Your task to perform on an android device: Open calendar and show me the third week of next month Image 0: 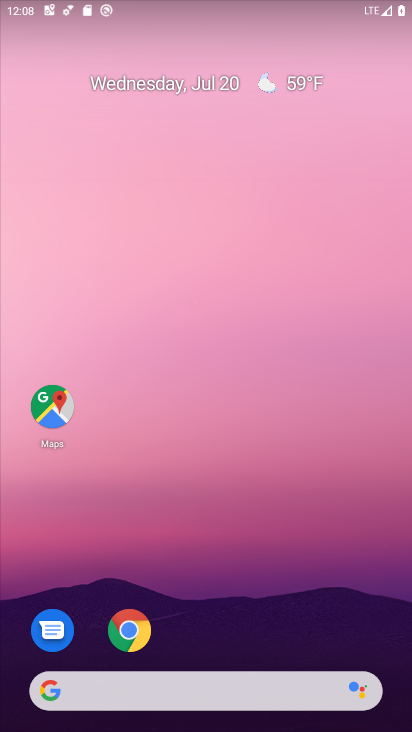
Step 0: drag from (378, 571) to (351, 92)
Your task to perform on an android device: Open calendar and show me the third week of next month Image 1: 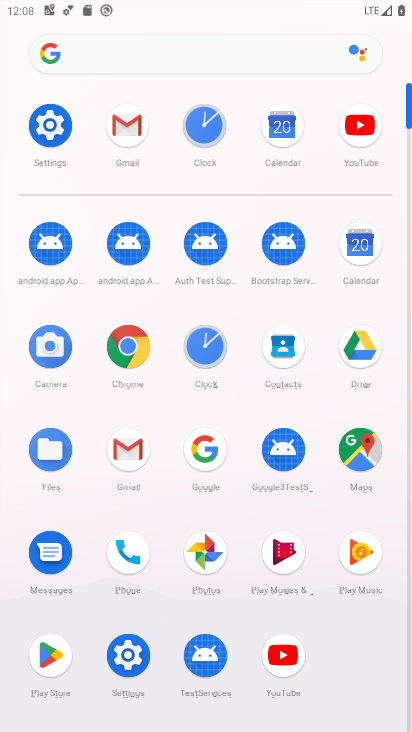
Step 1: click (358, 245)
Your task to perform on an android device: Open calendar and show me the third week of next month Image 2: 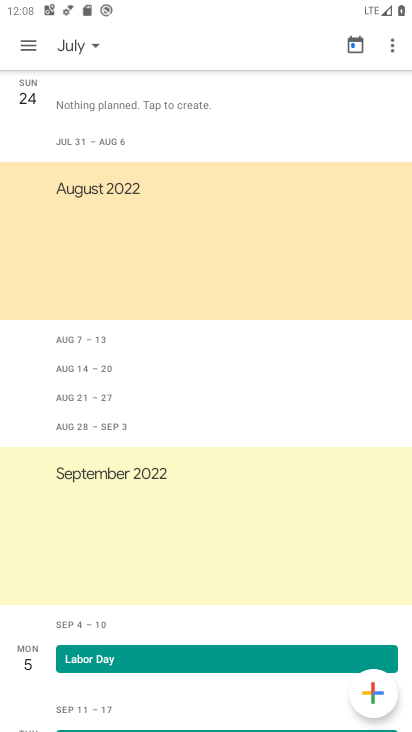
Step 2: click (34, 44)
Your task to perform on an android device: Open calendar and show me the third week of next month Image 3: 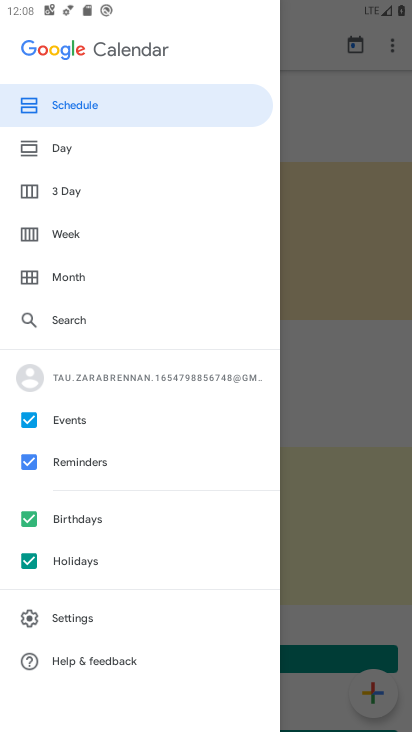
Step 3: click (73, 232)
Your task to perform on an android device: Open calendar and show me the third week of next month Image 4: 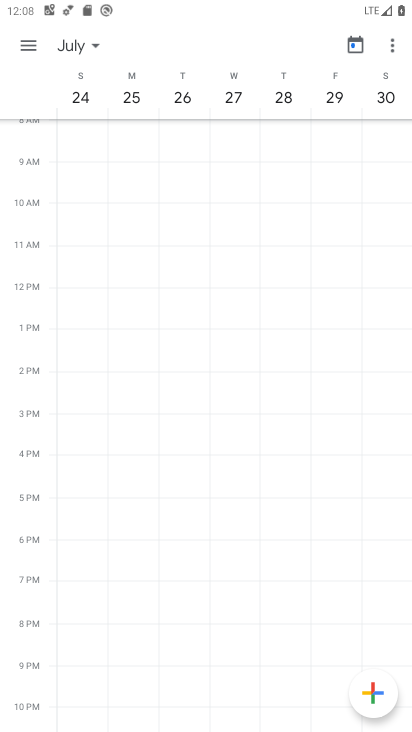
Step 4: click (33, 39)
Your task to perform on an android device: Open calendar and show me the third week of next month Image 5: 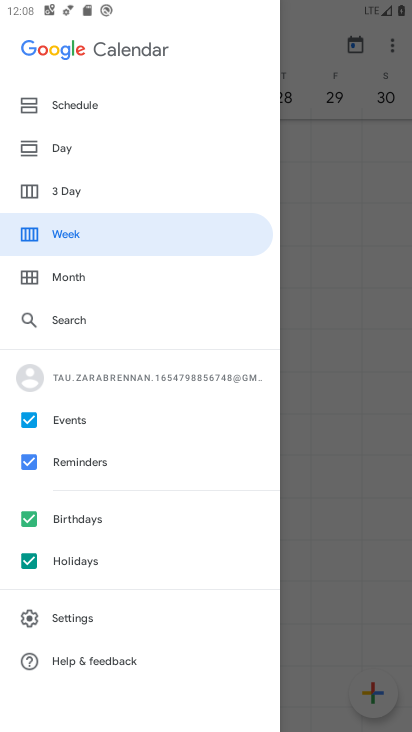
Step 5: click (105, 227)
Your task to perform on an android device: Open calendar and show me the third week of next month Image 6: 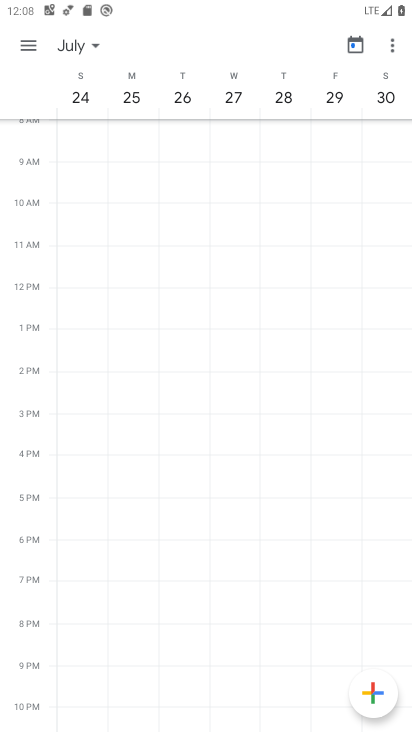
Step 6: click (94, 46)
Your task to perform on an android device: Open calendar and show me the third week of next month Image 7: 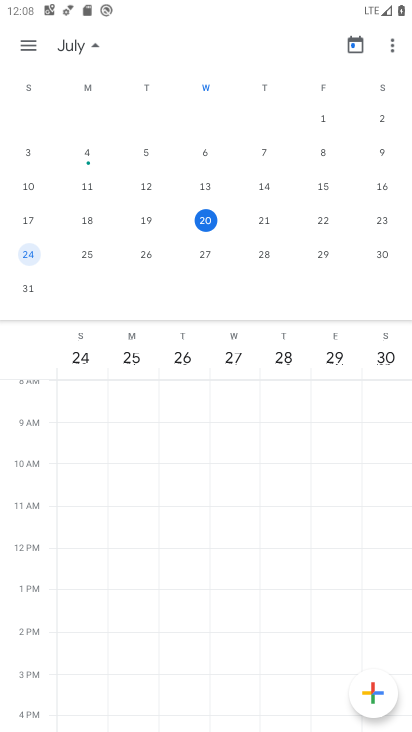
Step 7: drag from (388, 250) to (76, 259)
Your task to perform on an android device: Open calendar and show me the third week of next month Image 8: 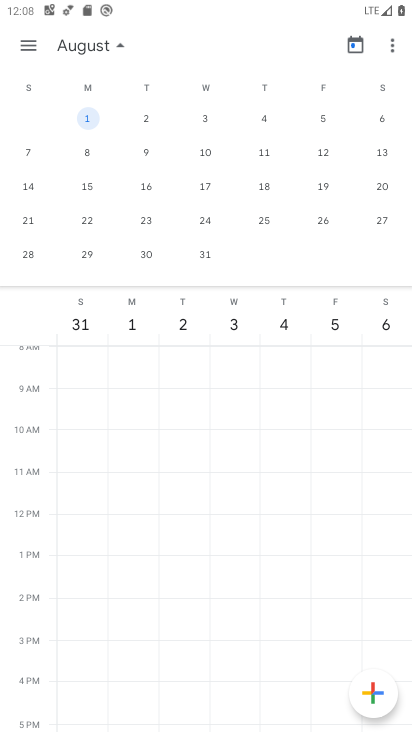
Step 8: click (21, 223)
Your task to perform on an android device: Open calendar and show me the third week of next month Image 9: 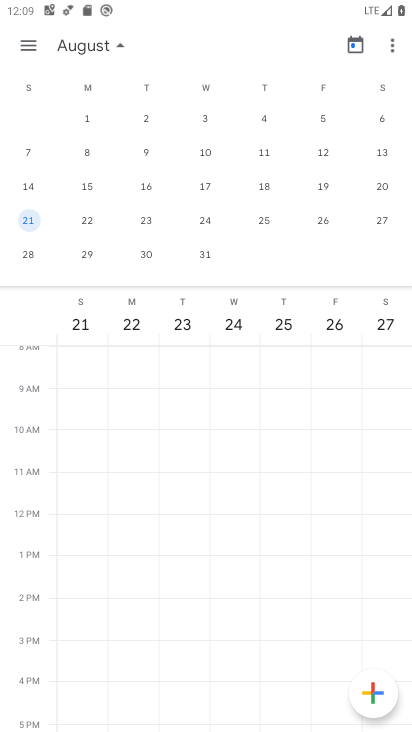
Step 9: task complete